Your task to perform on an android device: choose inbox layout in the gmail app Image 0: 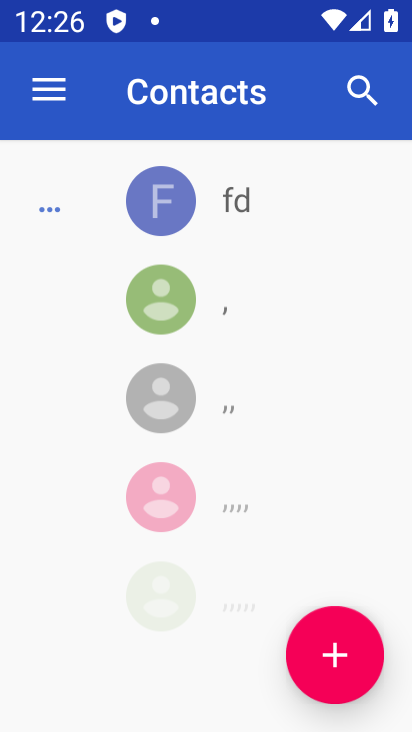
Step 0: drag from (223, 599) to (227, 340)
Your task to perform on an android device: choose inbox layout in the gmail app Image 1: 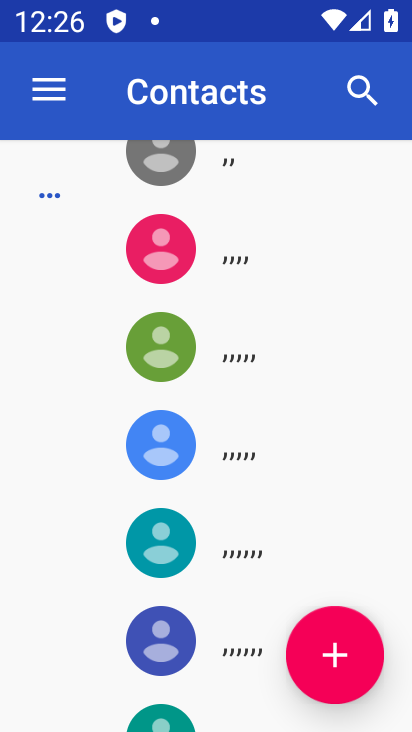
Step 1: press home button
Your task to perform on an android device: choose inbox layout in the gmail app Image 2: 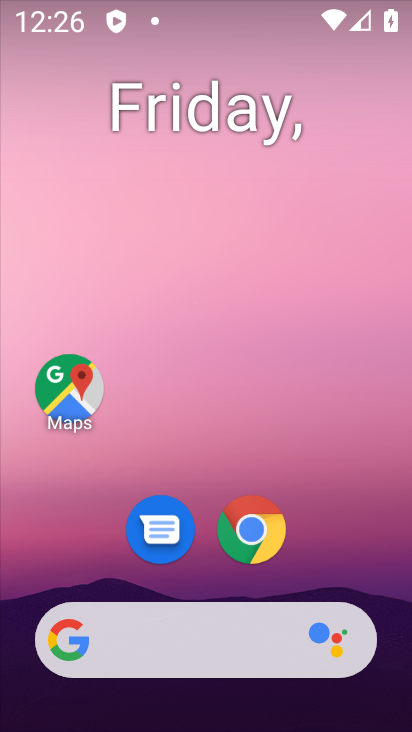
Step 2: drag from (214, 626) to (193, 229)
Your task to perform on an android device: choose inbox layout in the gmail app Image 3: 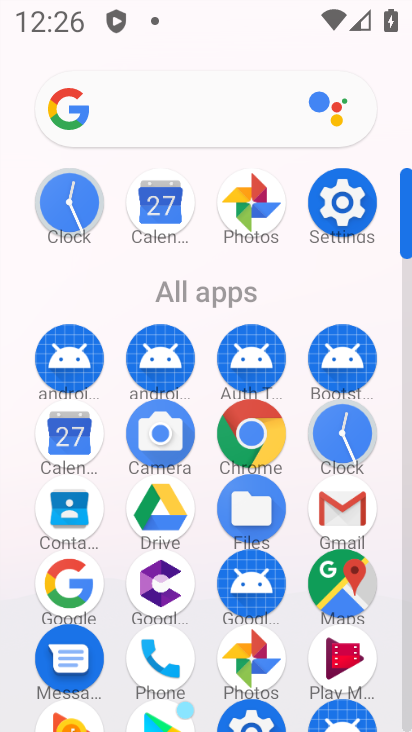
Step 3: click (345, 505)
Your task to perform on an android device: choose inbox layout in the gmail app Image 4: 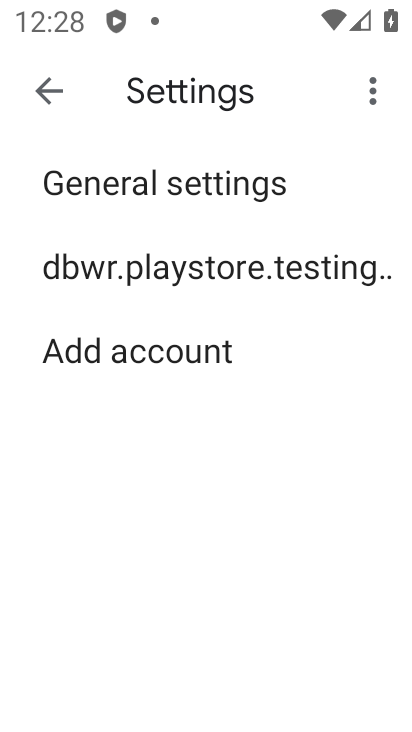
Step 4: click (229, 268)
Your task to perform on an android device: choose inbox layout in the gmail app Image 5: 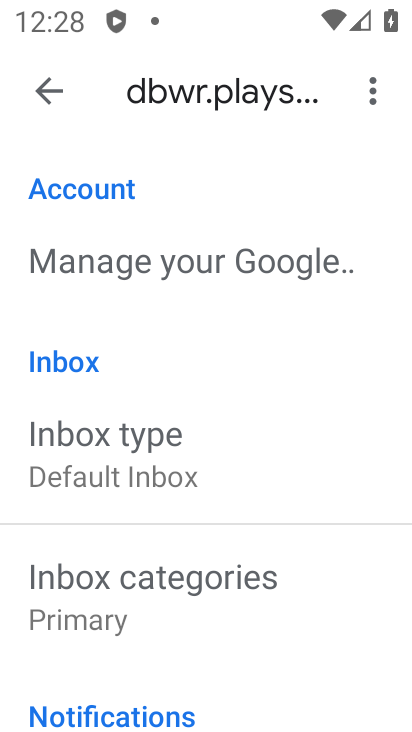
Step 5: drag from (134, 705) to (156, 410)
Your task to perform on an android device: choose inbox layout in the gmail app Image 6: 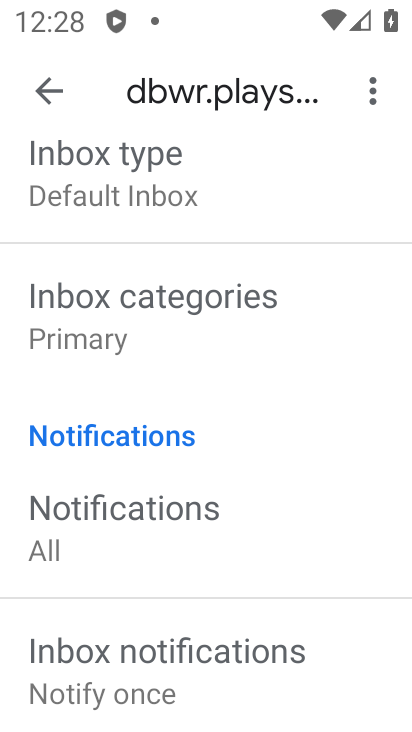
Step 6: click (121, 183)
Your task to perform on an android device: choose inbox layout in the gmail app Image 7: 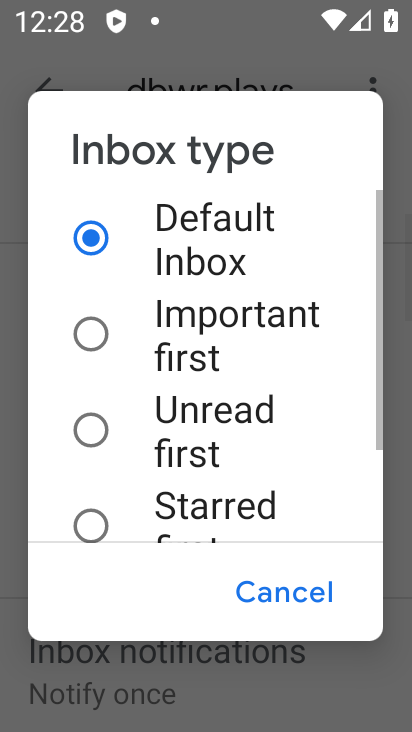
Step 7: drag from (200, 504) to (212, 167)
Your task to perform on an android device: choose inbox layout in the gmail app Image 8: 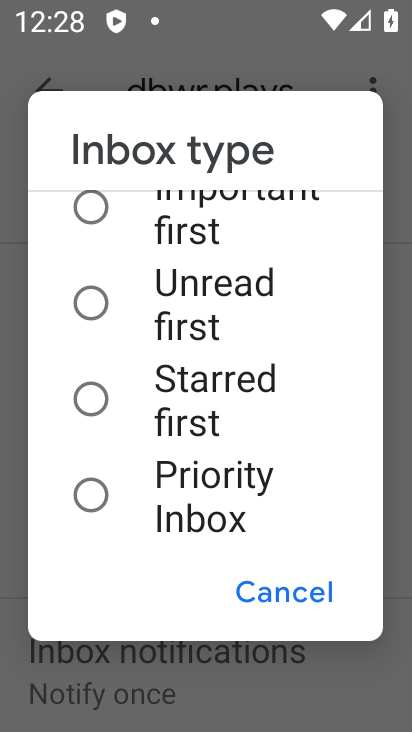
Step 8: click (196, 491)
Your task to perform on an android device: choose inbox layout in the gmail app Image 9: 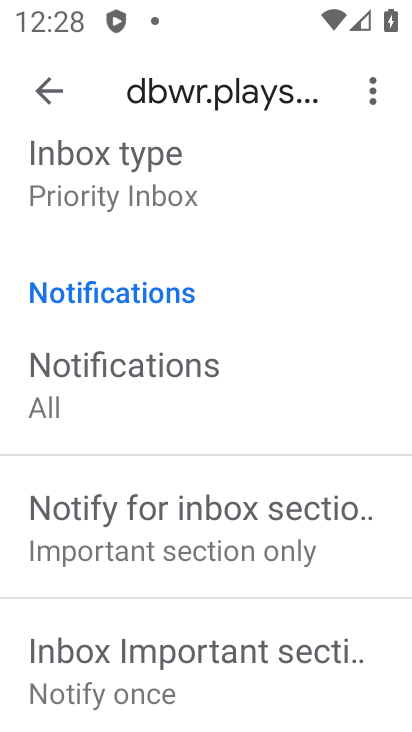
Step 9: task complete